Your task to perform on an android device: Play the last video I watched on Youtube Image 0: 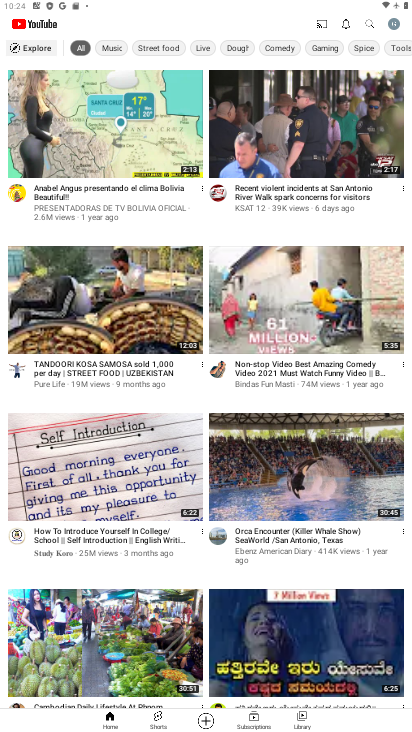
Step 0: task complete